Your task to perform on an android device: add a contact Image 0: 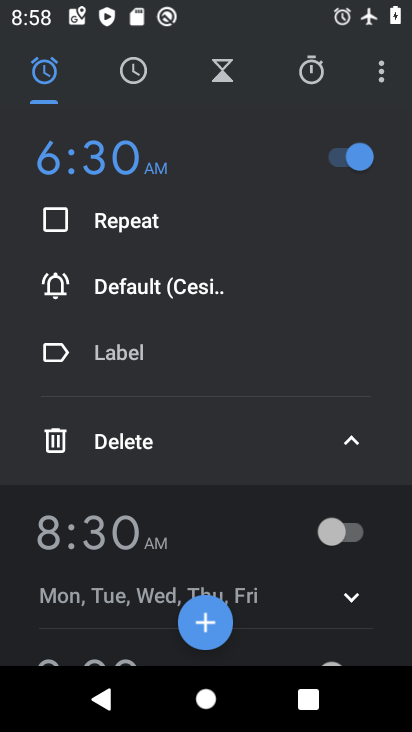
Step 0: press home button
Your task to perform on an android device: add a contact Image 1: 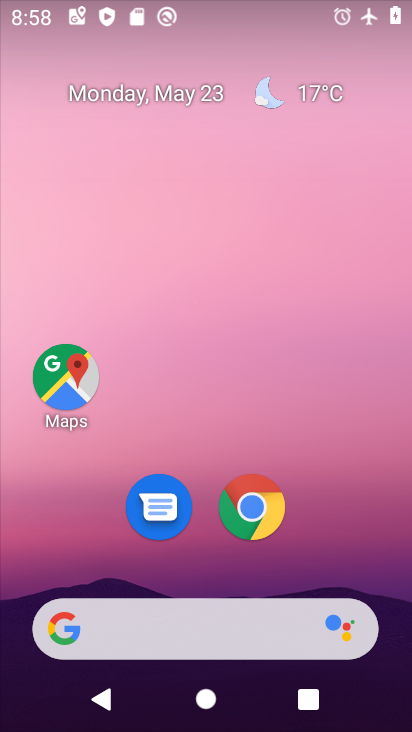
Step 1: drag from (334, 571) to (351, 7)
Your task to perform on an android device: add a contact Image 2: 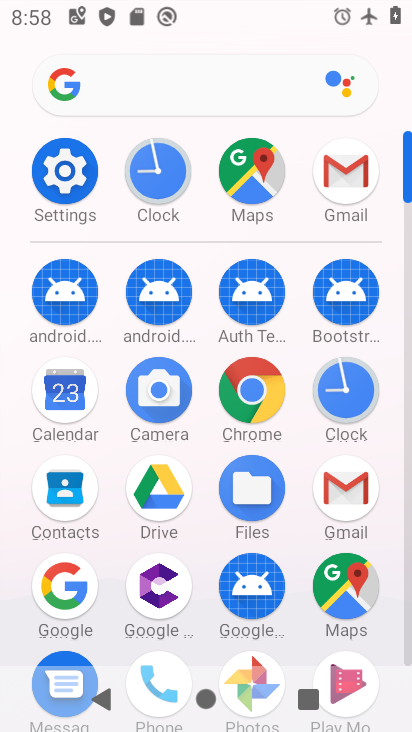
Step 2: click (66, 500)
Your task to perform on an android device: add a contact Image 3: 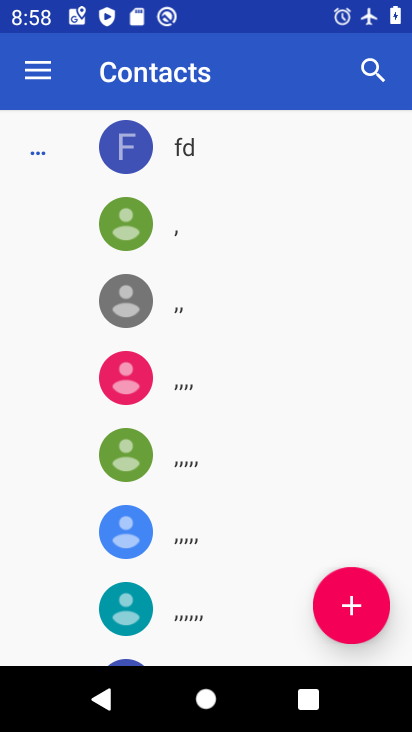
Step 3: click (358, 599)
Your task to perform on an android device: add a contact Image 4: 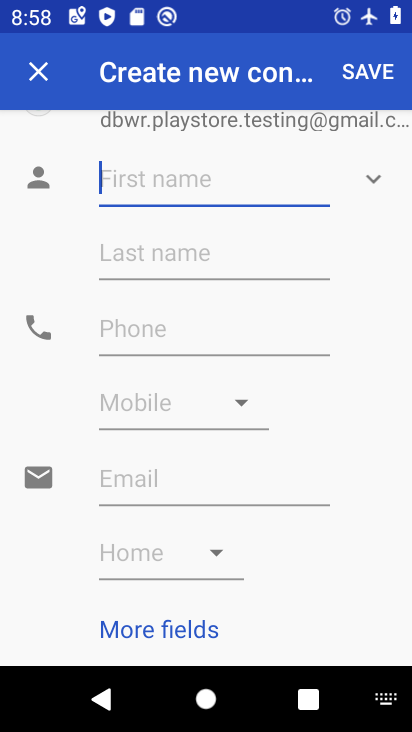
Step 4: click (107, 182)
Your task to perform on an android device: add a contact Image 5: 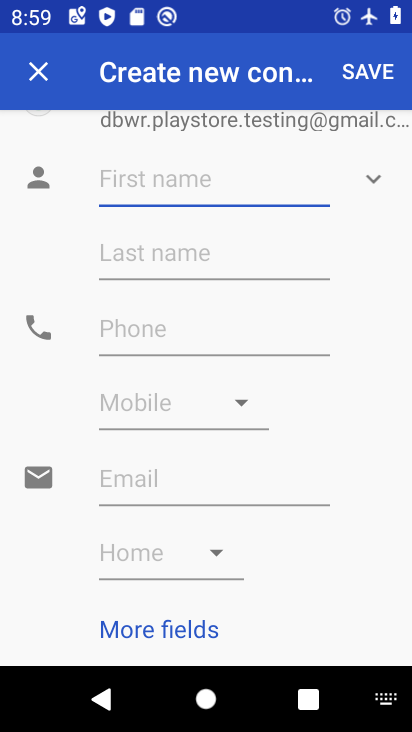
Step 5: type "bajaj"
Your task to perform on an android device: add a contact Image 6: 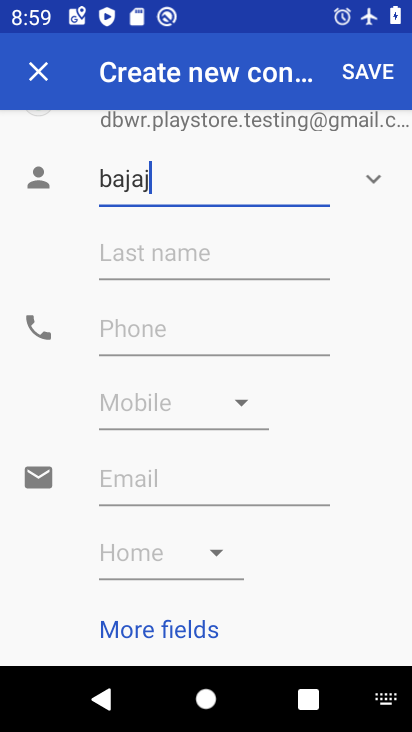
Step 6: click (167, 327)
Your task to perform on an android device: add a contact Image 7: 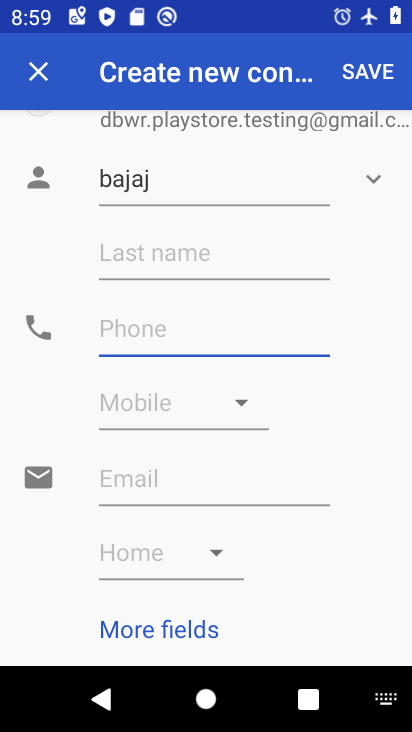
Step 7: type "988766678"
Your task to perform on an android device: add a contact Image 8: 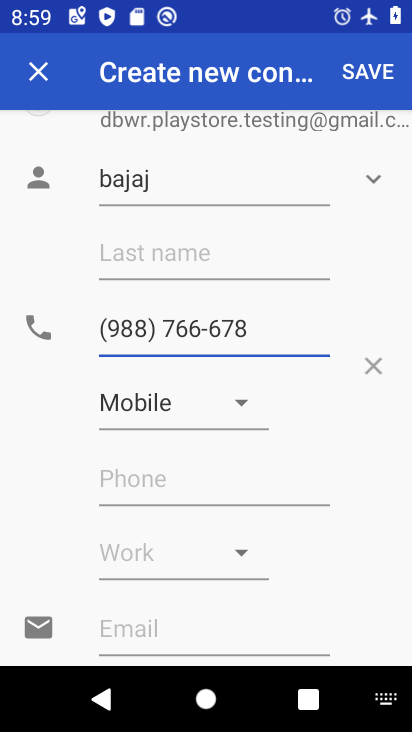
Step 8: click (363, 72)
Your task to perform on an android device: add a contact Image 9: 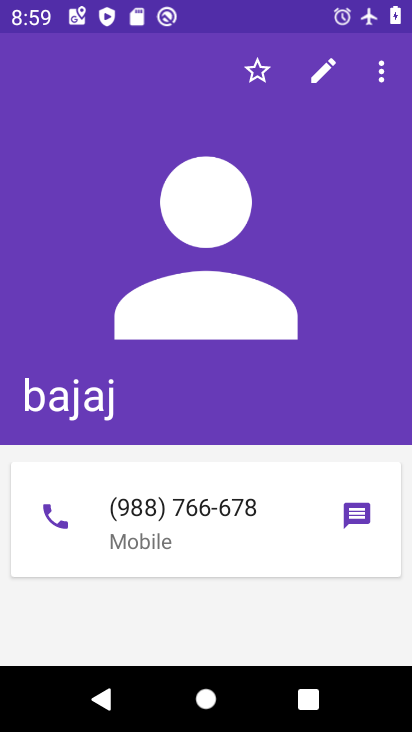
Step 9: task complete